Your task to perform on an android device: Open the Play Movies app and select the watchlist tab. Image 0: 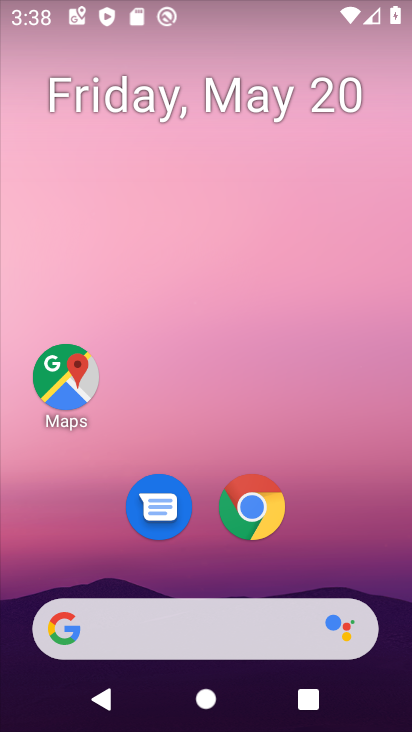
Step 0: drag from (347, 524) to (222, 77)
Your task to perform on an android device: Open the Play Movies app and select the watchlist tab. Image 1: 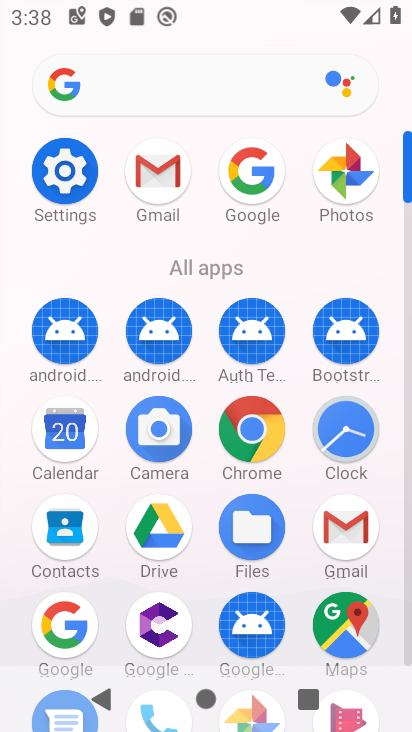
Step 1: drag from (203, 579) to (208, 299)
Your task to perform on an android device: Open the Play Movies app and select the watchlist tab. Image 2: 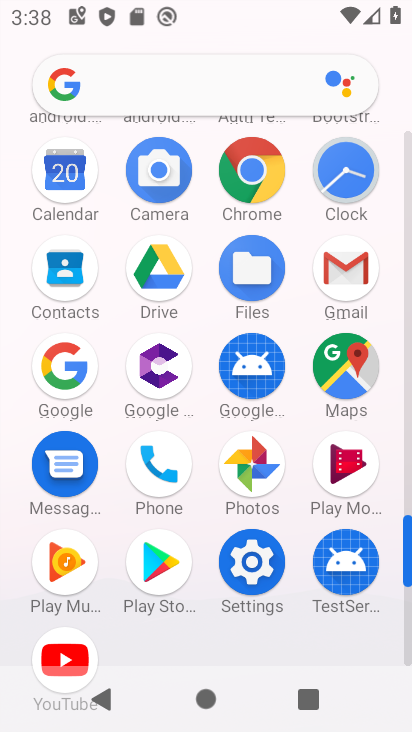
Step 2: click (351, 468)
Your task to perform on an android device: Open the Play Movies app and select the watchlist tab. Image 3: 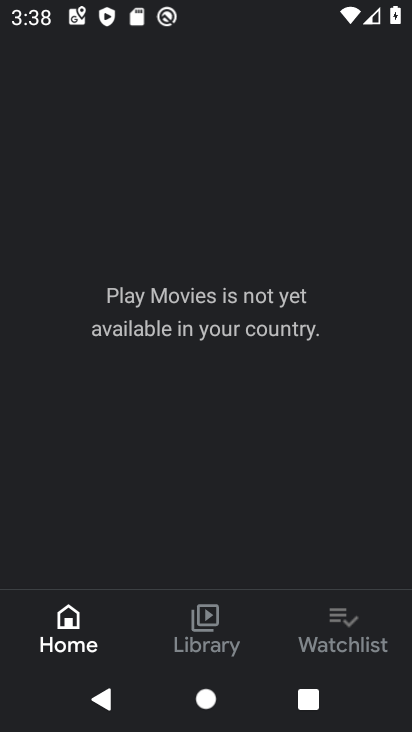
Step 3: click (346, 637)
Your task to perform on an android device: Open the Play Movies app and select the watchlist tab. Image 4: 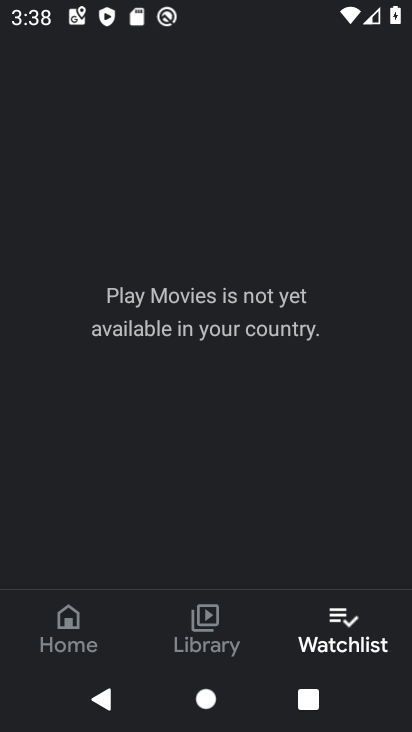
Step 4: task complete